Your task to perform on an android device: install app "HBO Max: Stream TV & Movies" Image 0: 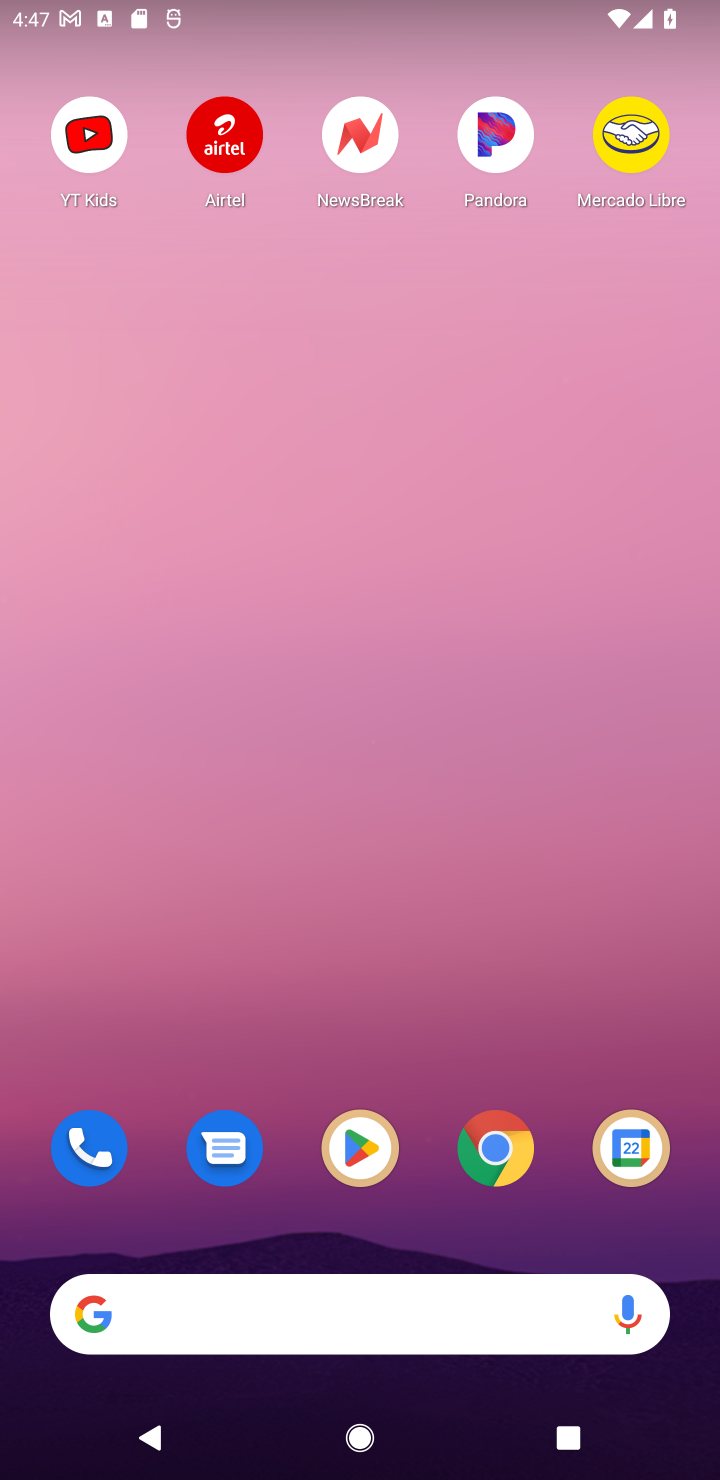
Step 0: drag from (400, 1231) to (267, 220)
Your task to perform on an android device: install app "HBO Max: Stream TV & Movies" Image 1: 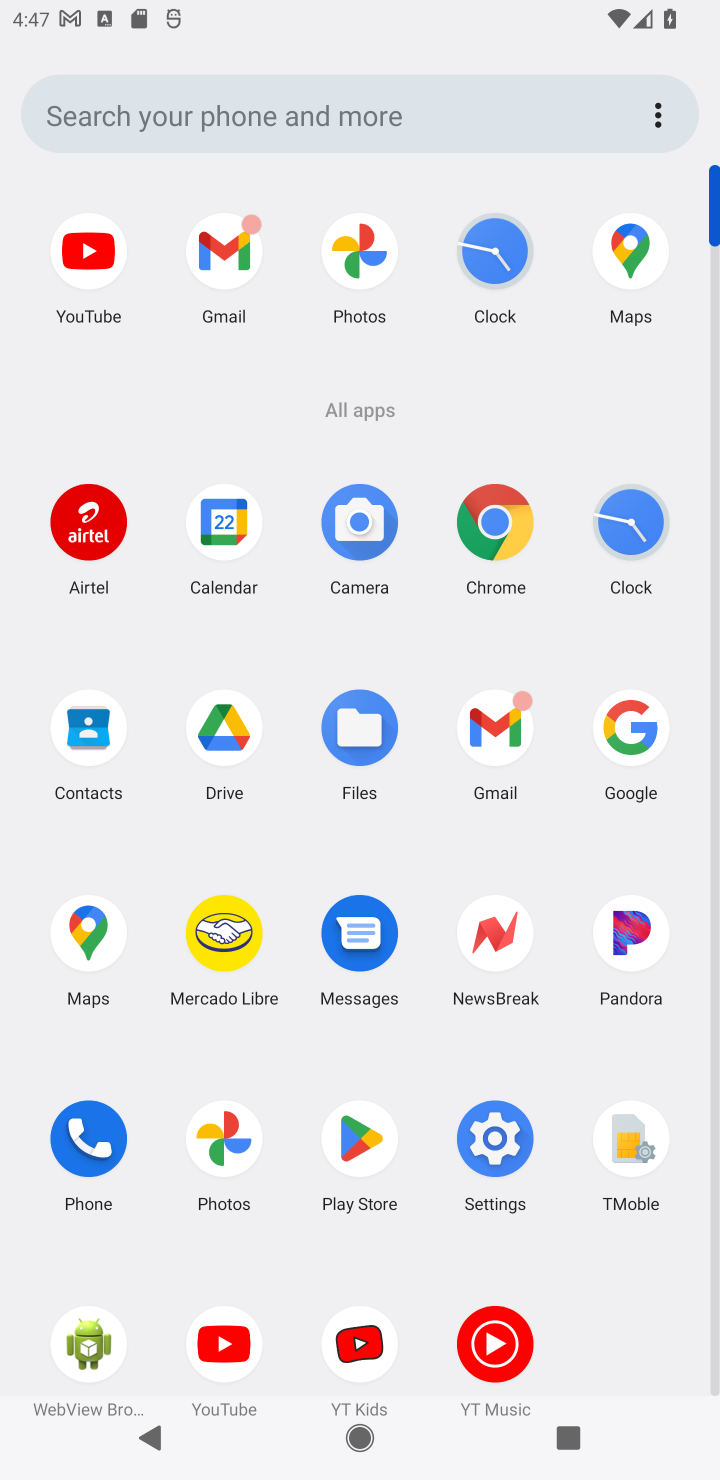
Step 1: click (354, 1152)
Your task to perform on an android device: install app "HBO Max: Stream TV & Movies" Image 2: 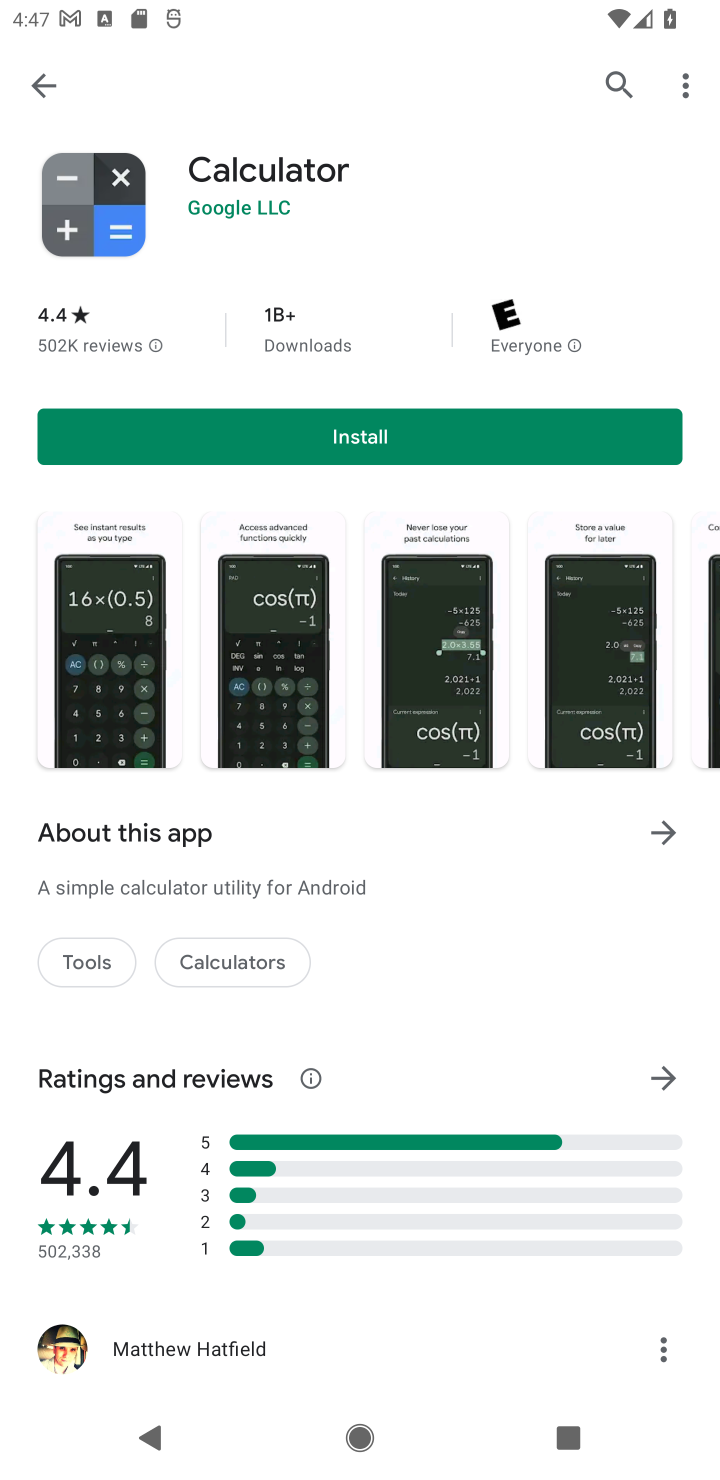
Step 2: click (612, 83)
Your task to perform on an android device: install app "HBO Max: Stream TV & Movies" Image 3: 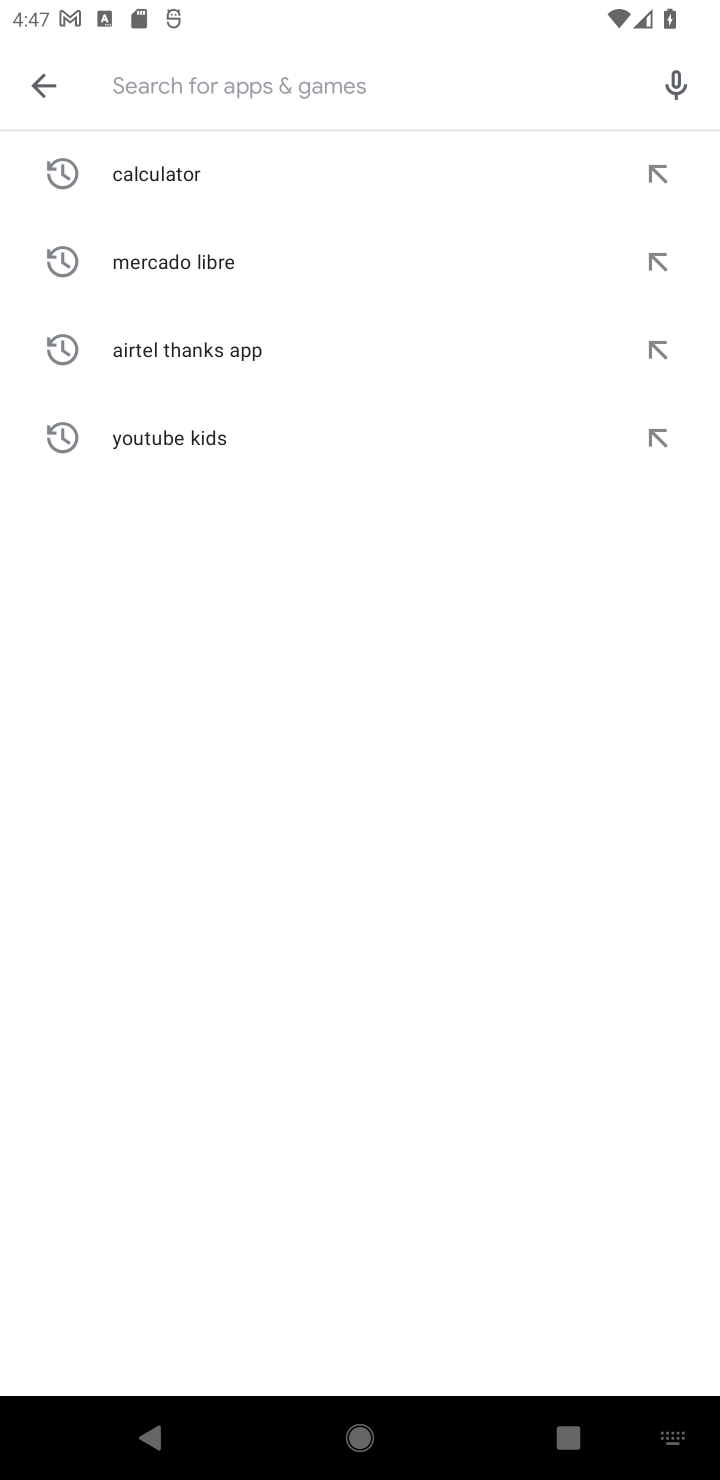
Step 3: type "HBO Max: Stream TV & Movies"
Your task to perform on an android device: install app "HBO Max: Stream TV & Movies" Image 4: 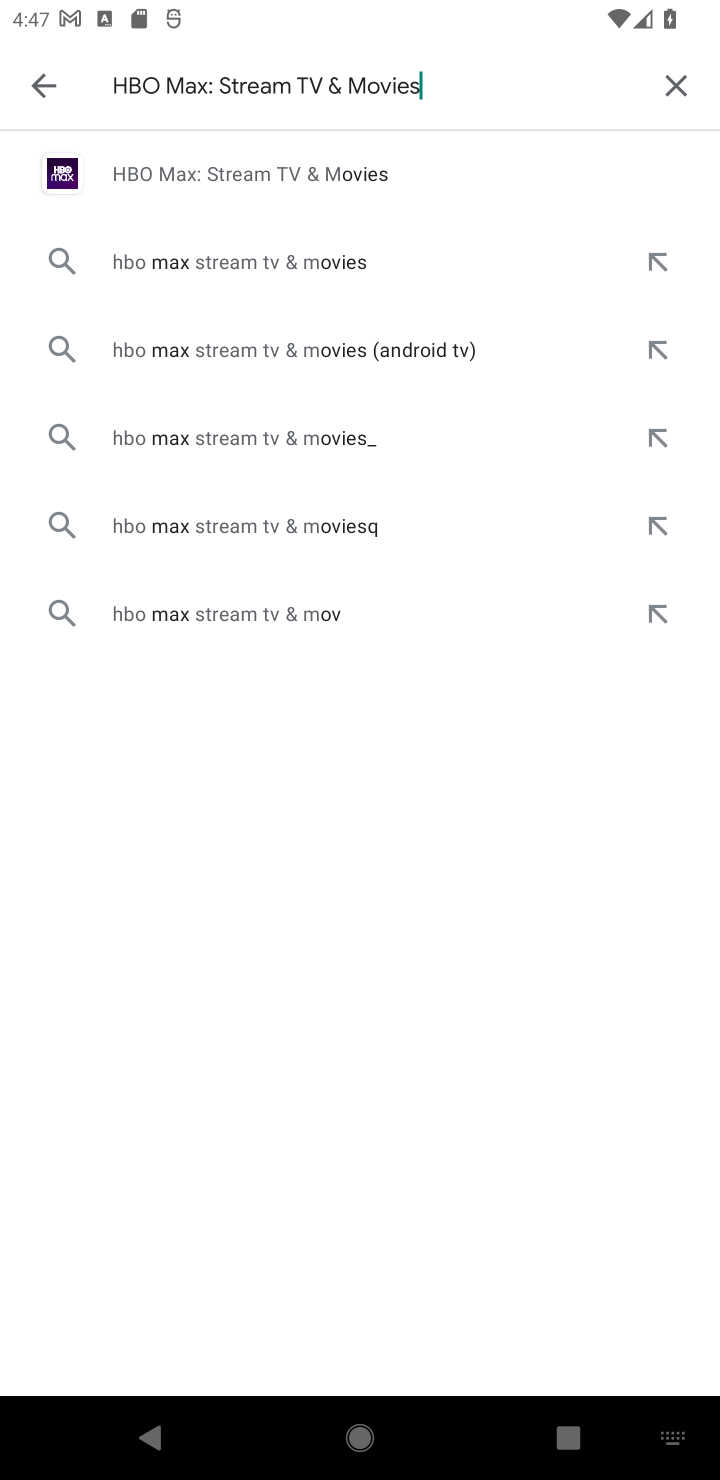
Step 4: type ""
Your task to perform on an android device: install app "HBO Max: Stream TV & Movies" Image 5: 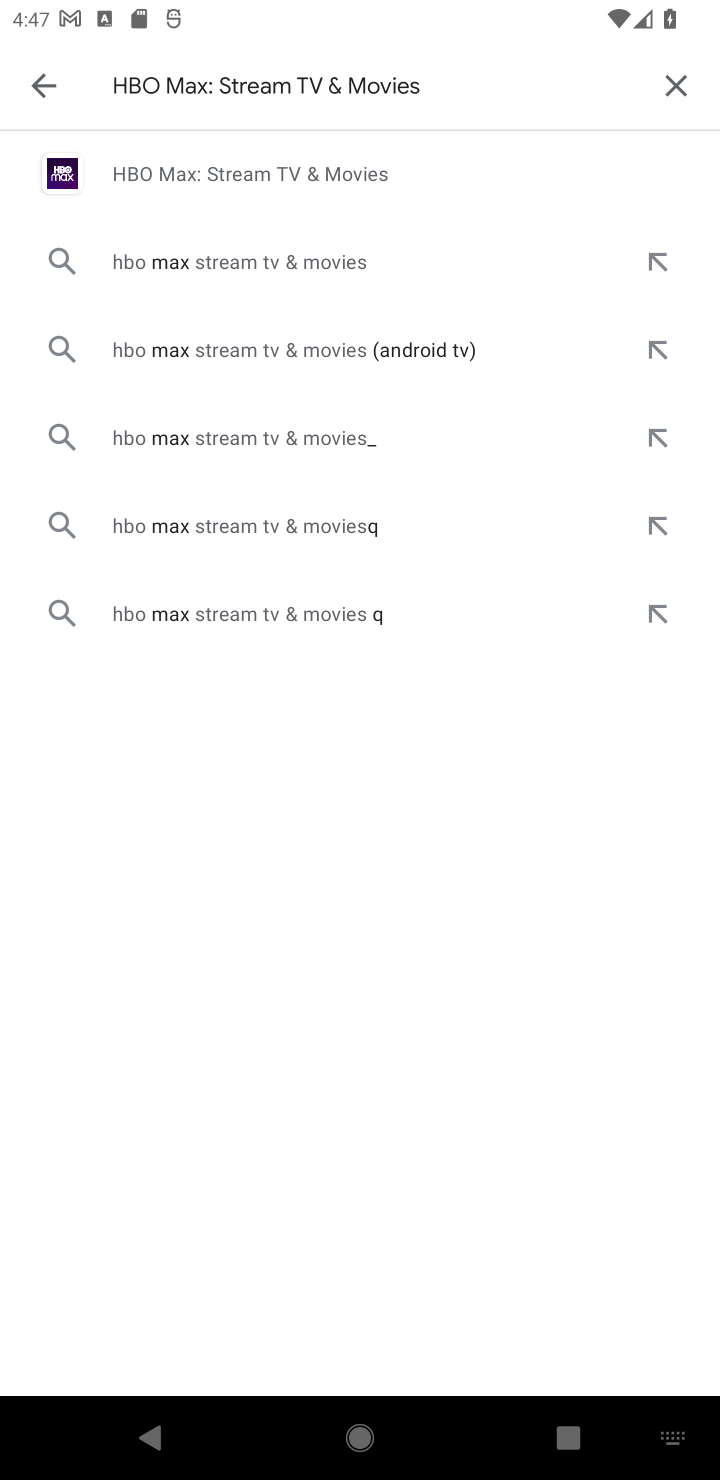
Step 5: click (340, 170)
Your task to perform on an android device: install app "HBO Max: Stream TV & Movies" Image 6: 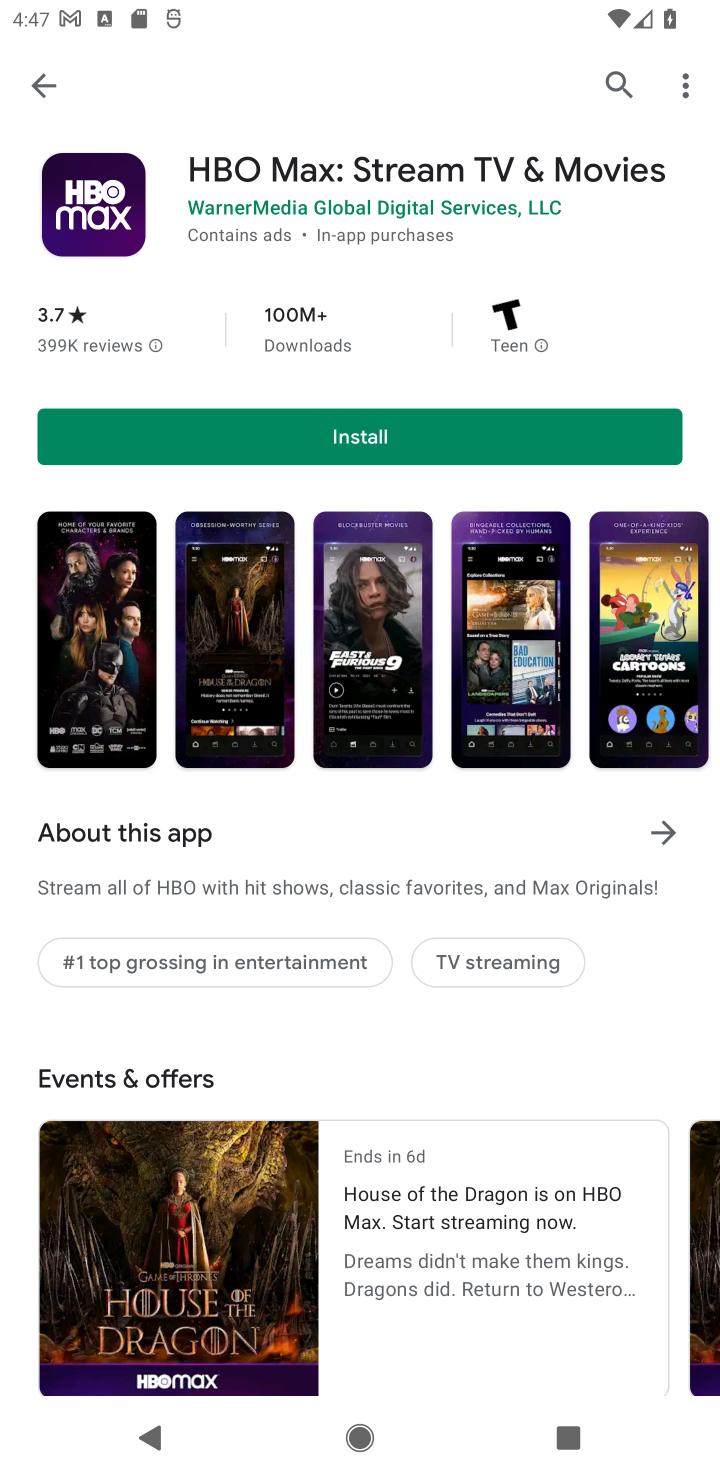
Step 6: click (359, 425)
Your task to perform on an android device: install app "HBO Max: Stream TV & Movies" Image 7: 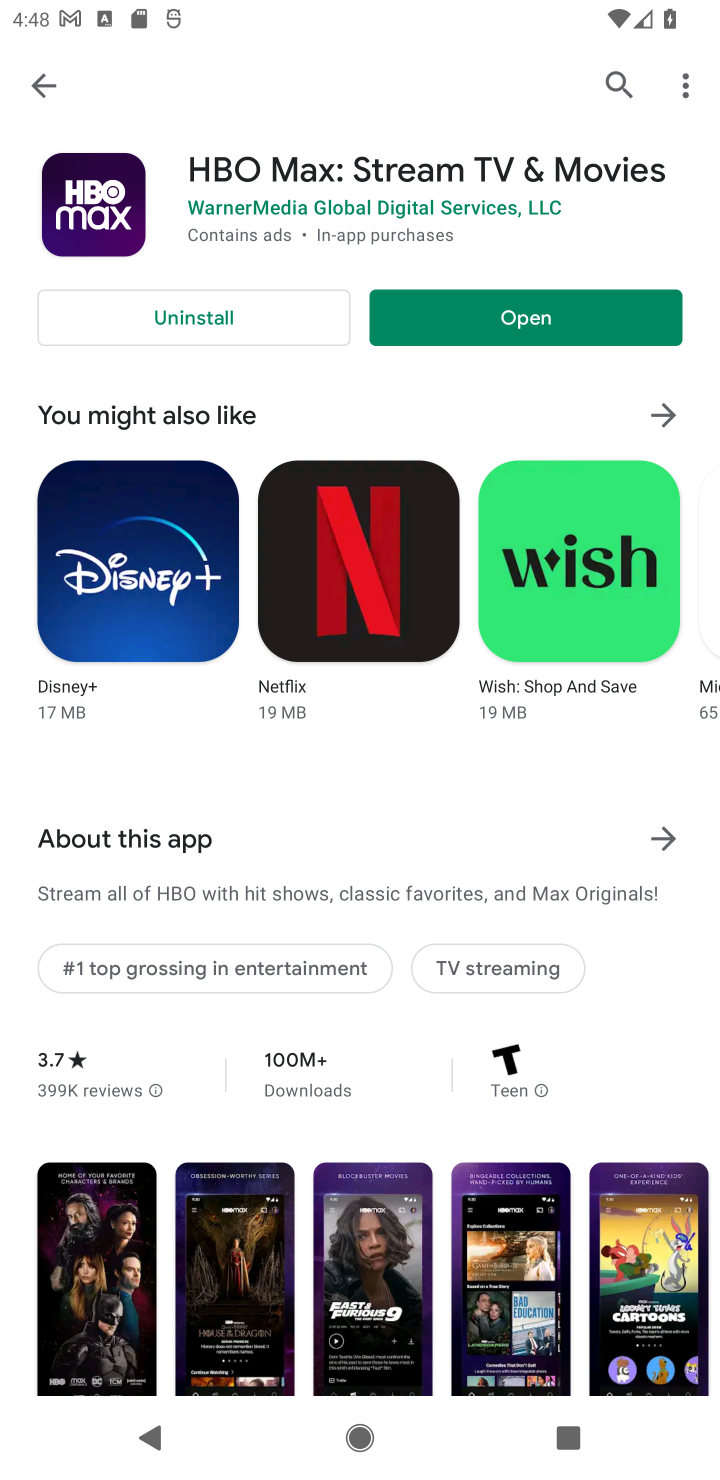
Step 7: task complete